Your task to perform on an android device: Open the stopwatch Image 0: 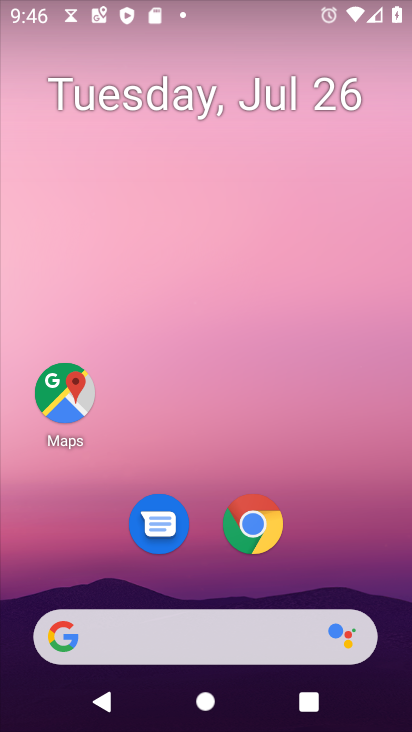
Step 0: drag from (231, 500) to (325, 118)
Your task to perform on an android device: Open the stopwatch Image 1: 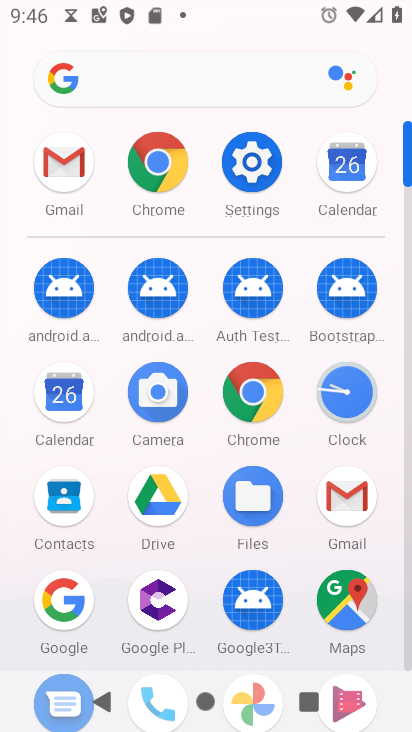
Step 1: click (347, 400)
Your task to perform on an android device: Open the stopwatch Image 2: 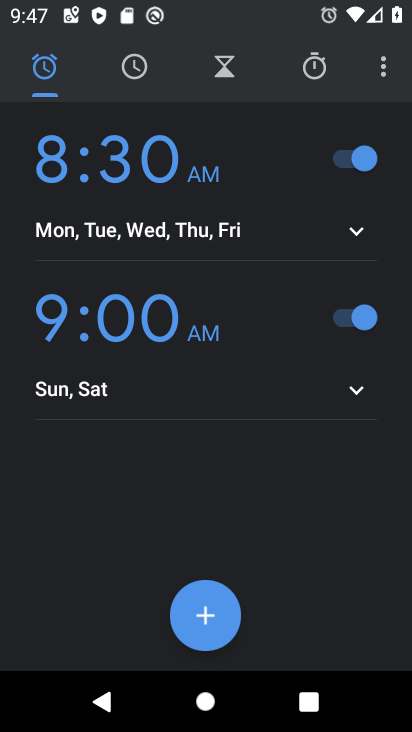
Step 2: click (315, 67)
Your task to perform on an android device: Open the stopwatch Image 3: 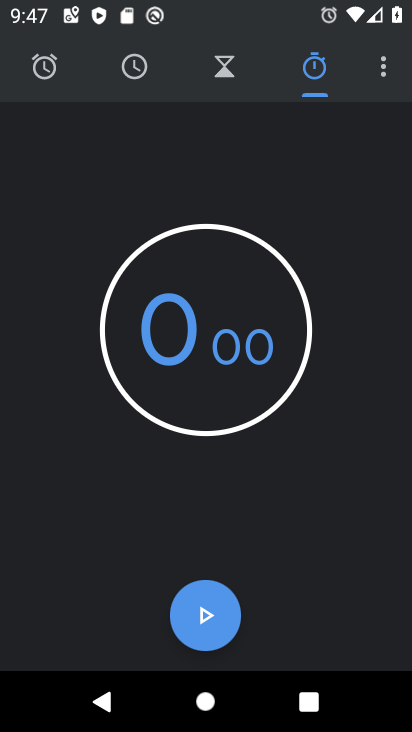
Step 3: task complete